Your task to perform on an android device: Open Google Maps Image 0: 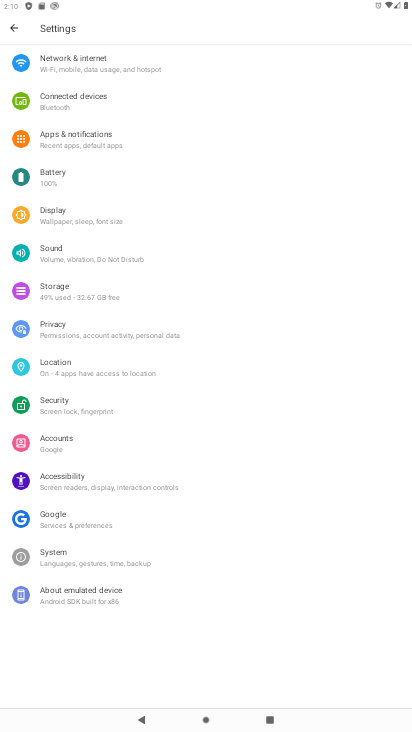
Step 0: press home button
Your task to perform on an android device: Open Google Maps Image 1: 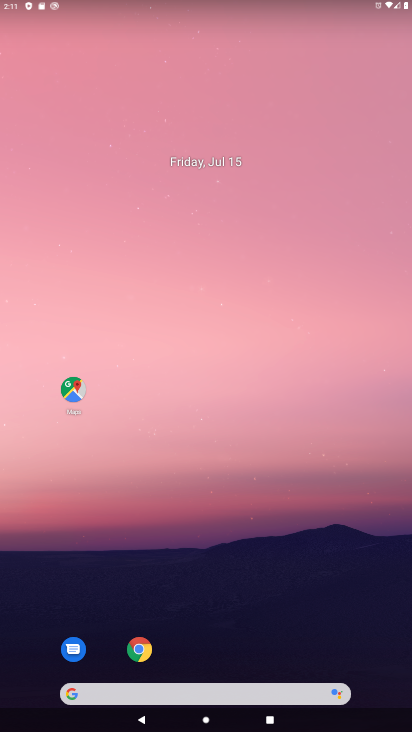
Step 1: click (68, 381)
Your task to perform on an android device: Open Google Maps Image 2: 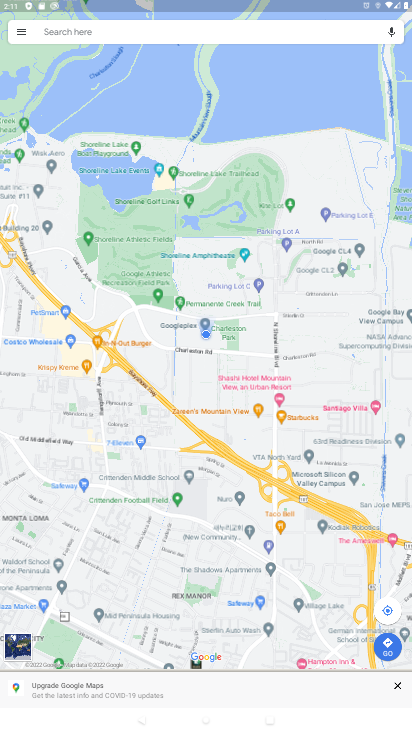
Step 2: task complete